Your task to perform on an android device: Go to wifi settings Image 0: 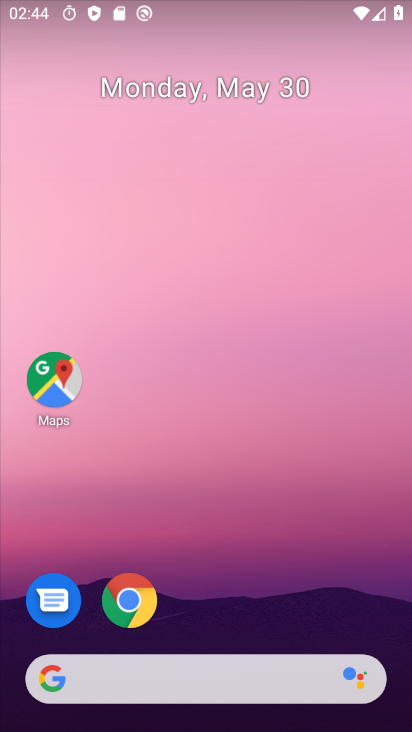
Step 0: drag from (219, 587) to (295, 60)
Your task to perform on an android device: Go to wifi settings Image 1: 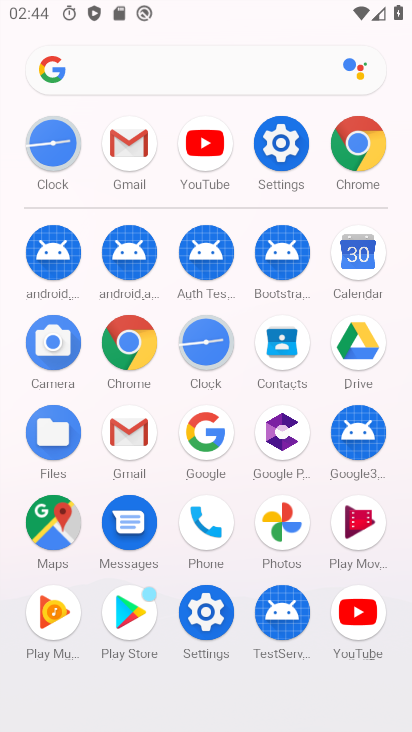
Step 1: click (284, 152)
Your task to perform on an android device: Go to wifi settings Image 2: 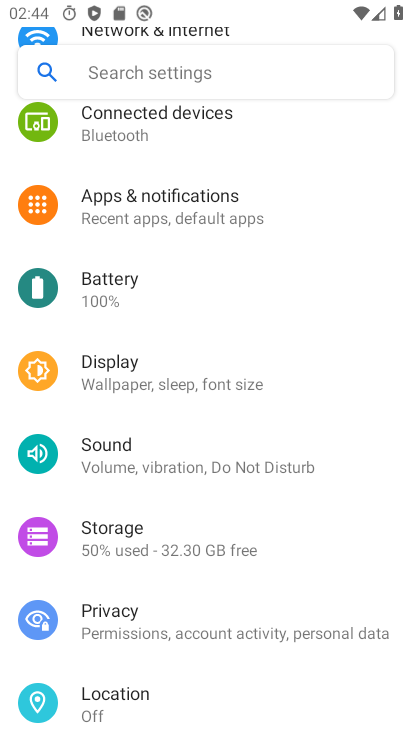
Step 2: drag from (224, 161) to (194, 603)
Your task to perform on an android device: Go to wifi settings Image 3: 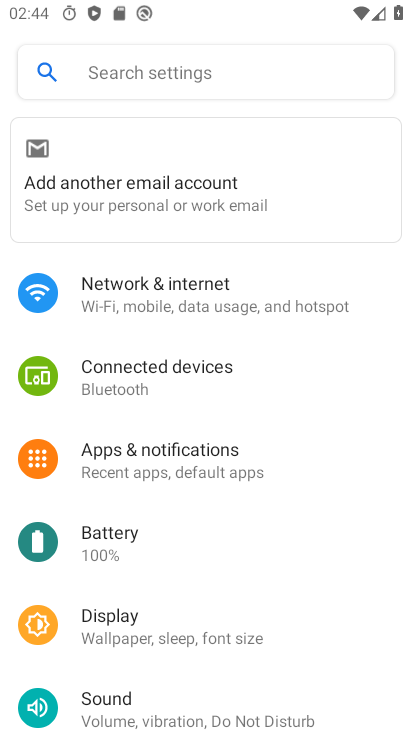
Step 3: click (201, 285)
Your task to perform on an android device: Go to wifi settings Image 4: 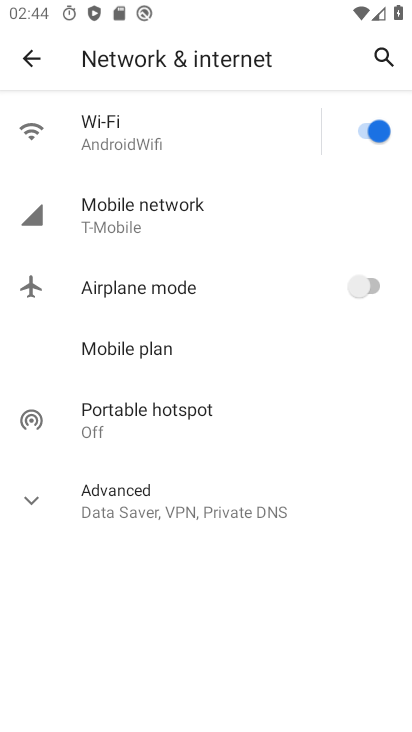
Step 4: click (156, 119)
Your task to perform on an android device: Go to wifi settings Image 5: 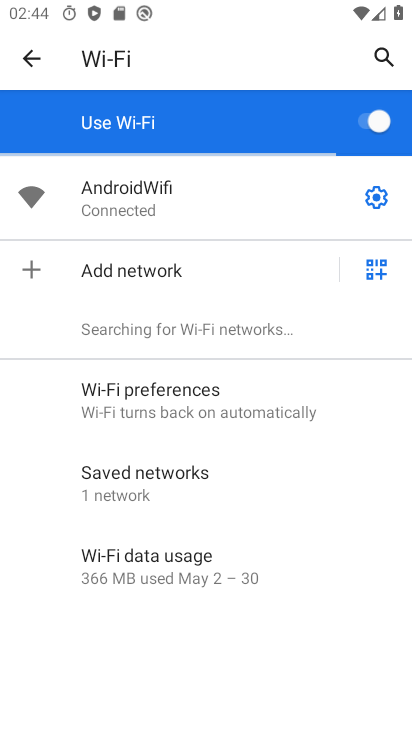
Step 5: task complete